Your task to perform on an android device: open device folders in google photos Image 0: 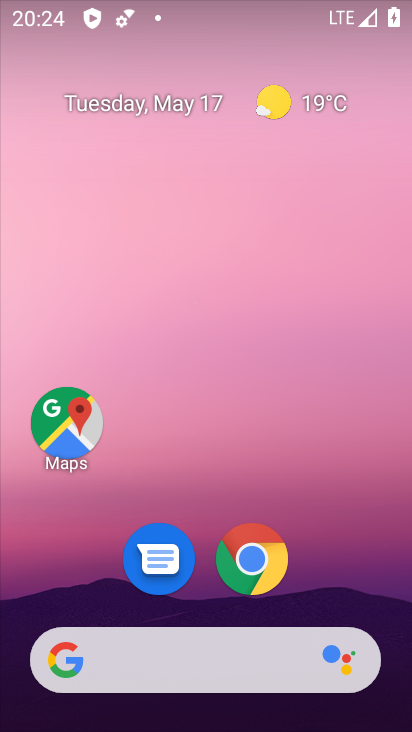
Step 0: drag from (215, 610) to (219, 66)
Your task to perform on an android device: open device folders in google photos Image 1: 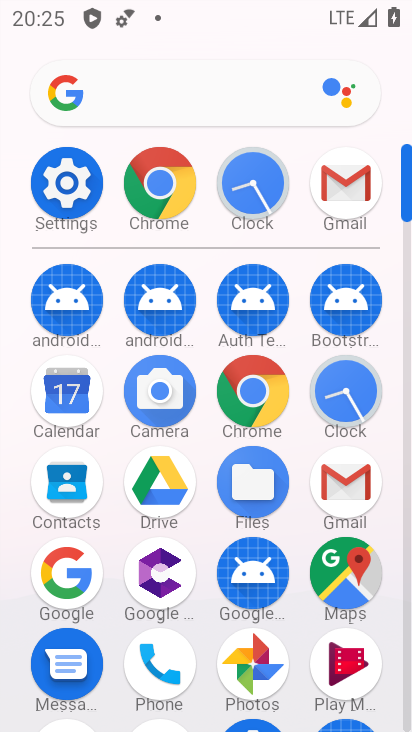
Step 1: click (256, 653)
Your task to perform on an android device: open device folders in google photos Image 2: 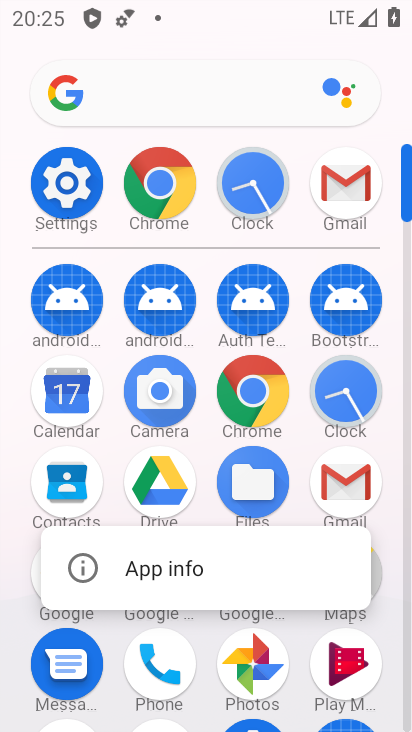
Step 2: click (180, 584)
Your task to perform on an android device: open device folders in google photos Image 3: 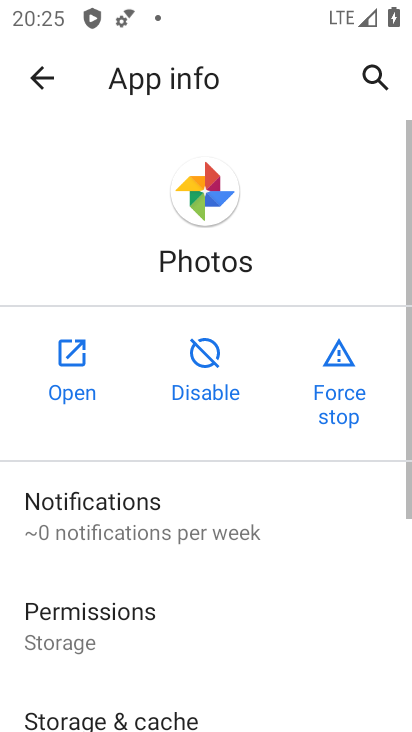
Step 3: click (63, 346)
Your task to perform on an android device: open device folders in google photos Image 4: 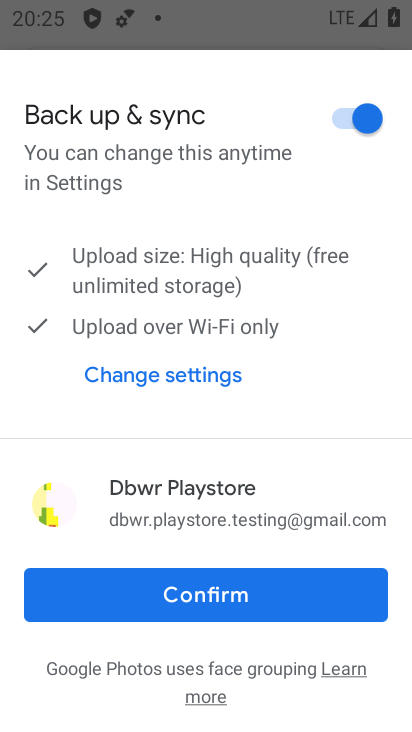
Step 4: click (197, 586)
Your task to perform on an android device: open device folders in google photos Image 5: 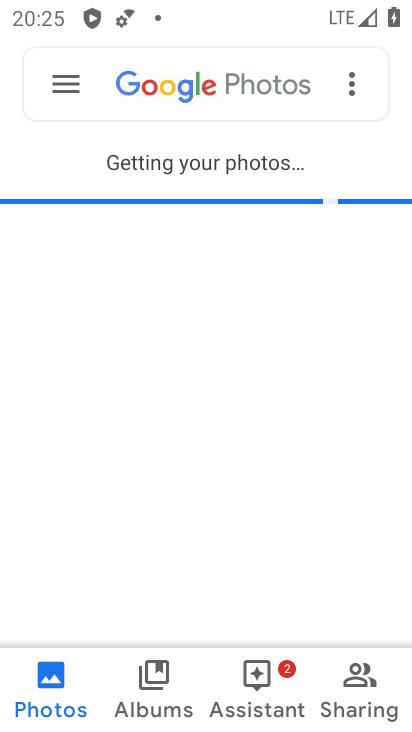
Step 5: click (74, 78)
Your task to perform on an android device: open device folders in google photos Image 6: 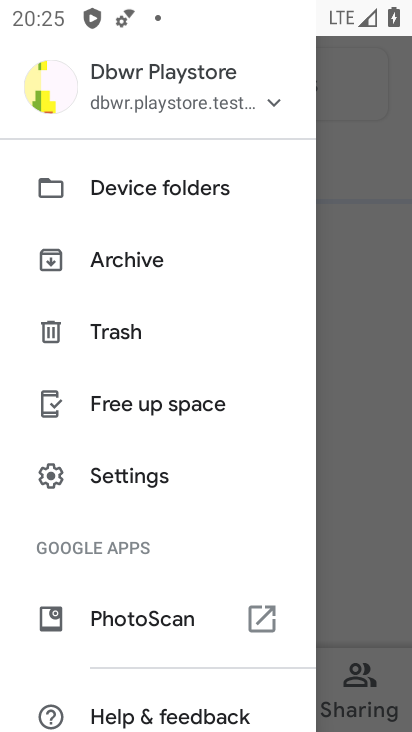
Step 6: click (164, 194)
Your task to perform on an android device: open device folders in google photos Image 7: 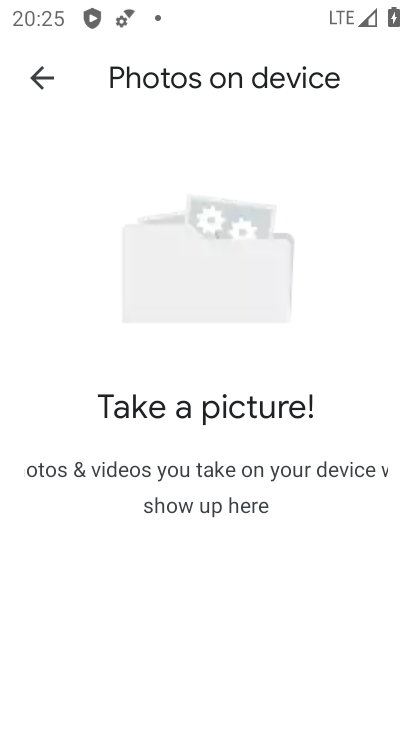
Step 7: task complete